Your task to perform on an android device: Set the phone to "Do not disturb". Image 0: 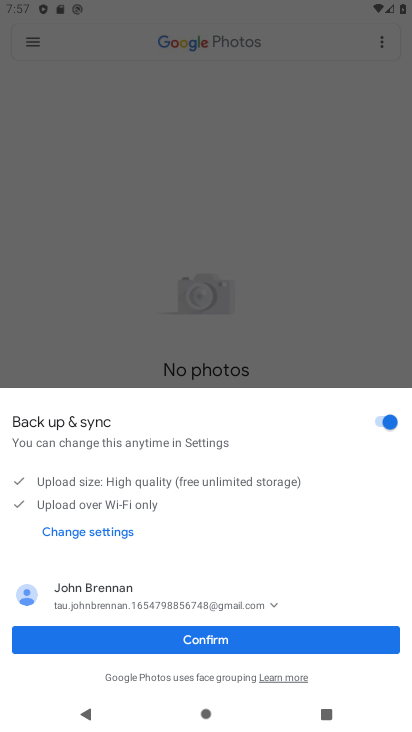
Step 0: press home button
Your task to perform on an android device: Set the phone to "Do not disturb". Image 1: 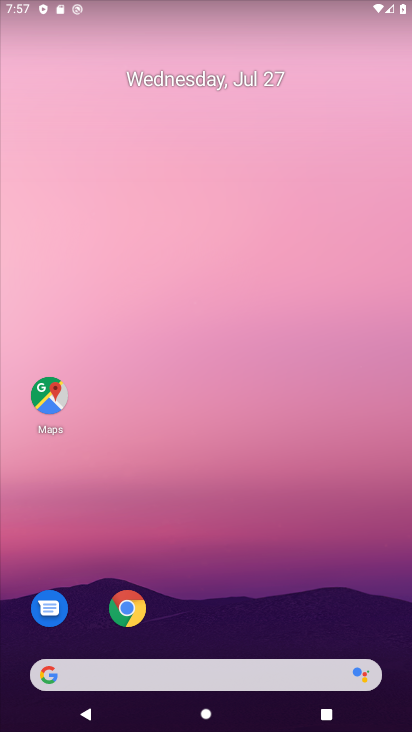
Step 1: drag from (239, 444) to (237, 160)
Your task to perform on an android device: Set the phone to "Do not disturb". Image 2: 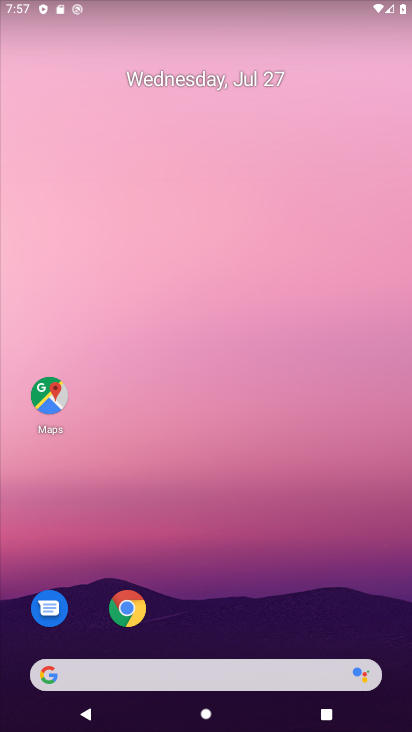
Step 2: drag from (326, 446) to (326, 207)
Your task to perform on an android device: Set the phone to "Do not disturb". Image 3: 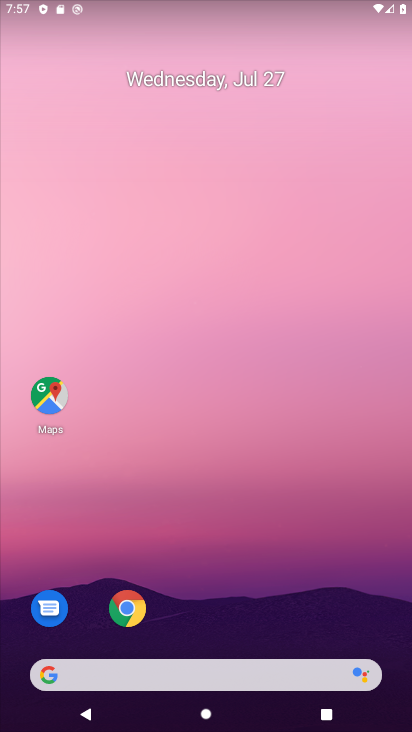
Step 3: drag from (294, 506) to (298, 86)
Your task to perform on an android device: Set the phone to "Do not disturb". Image 4: 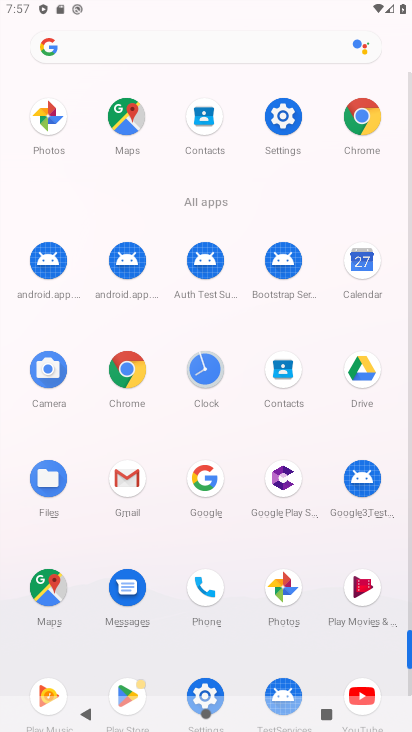
Step 4: click (274, 123)
Your task to perform on an android device: Set the phone to "Do not disturb". Image 5: 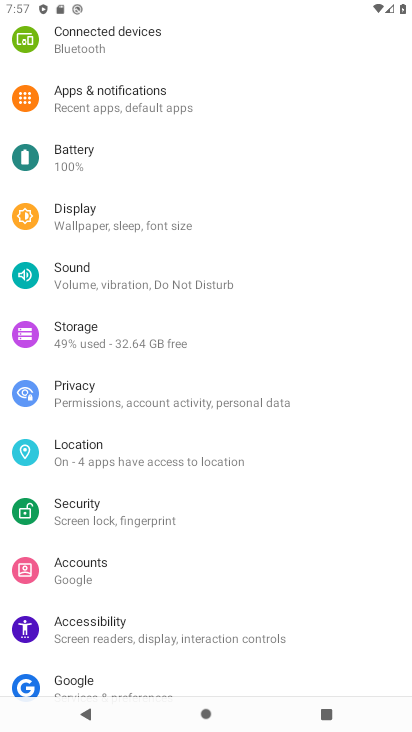
Step 5: task complete